Your task to perform on an android device: Empty the shopping cart on amazon. Add jbl flip 4 to the cart on amazon Image 0: 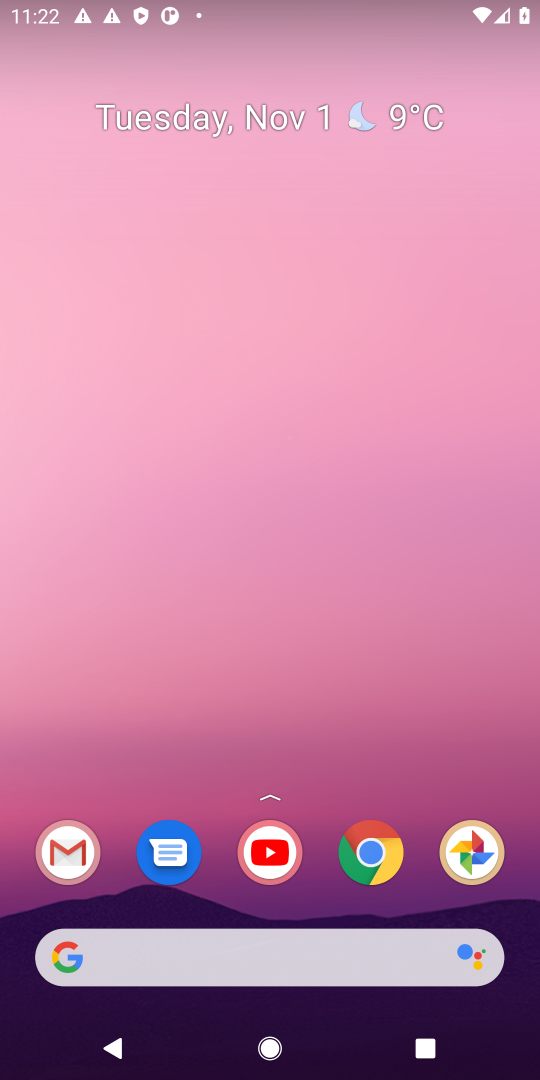
Step 0: drag from (229, 913) to (384, 309)
Your task to perform on an android device: Empty the shopping cart on amazon. Add jbl flip 4 to the cart on amazon Image 1: 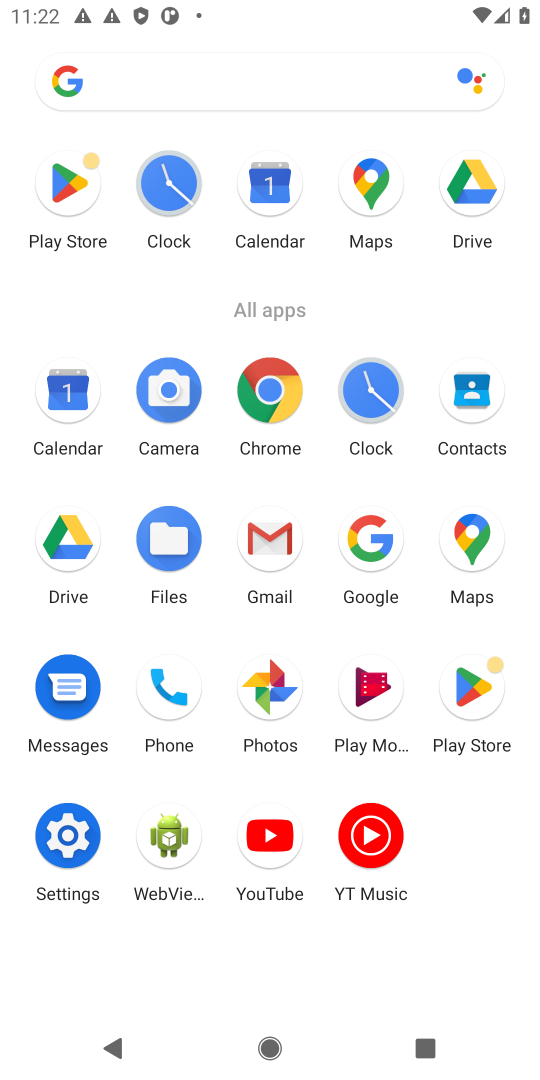
Step 1: click (369, 560)
Your task to perform on an android device: Empty the shopping cart on amazon. Add jbl flip 4 to the cart on amazon Image 2: 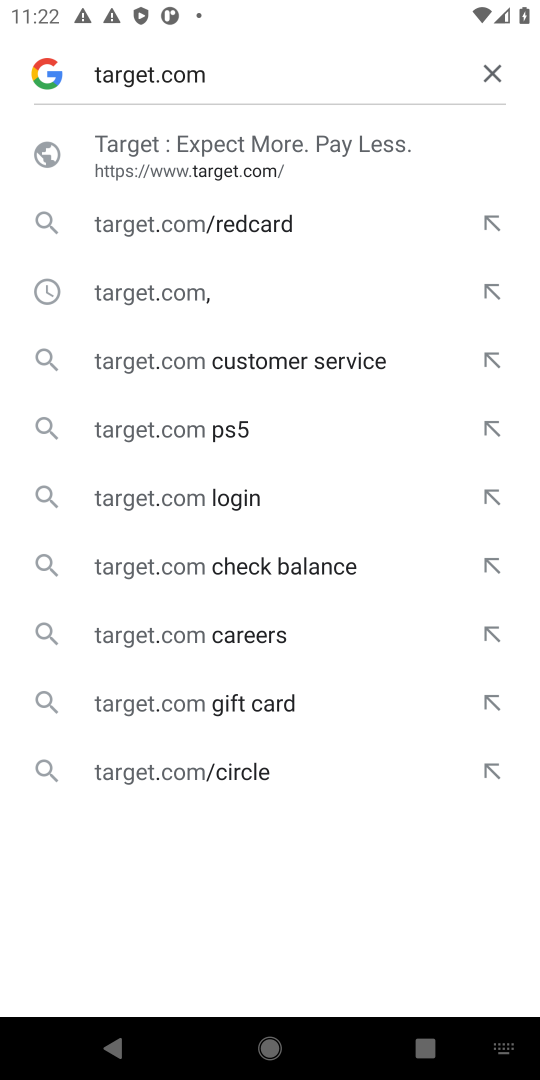
Step 2: click (501, 79)
Your task to perform on an android device: Empty the shopping cart on amazon. Add jbl flip 4 to the cart on amazon Image 3: 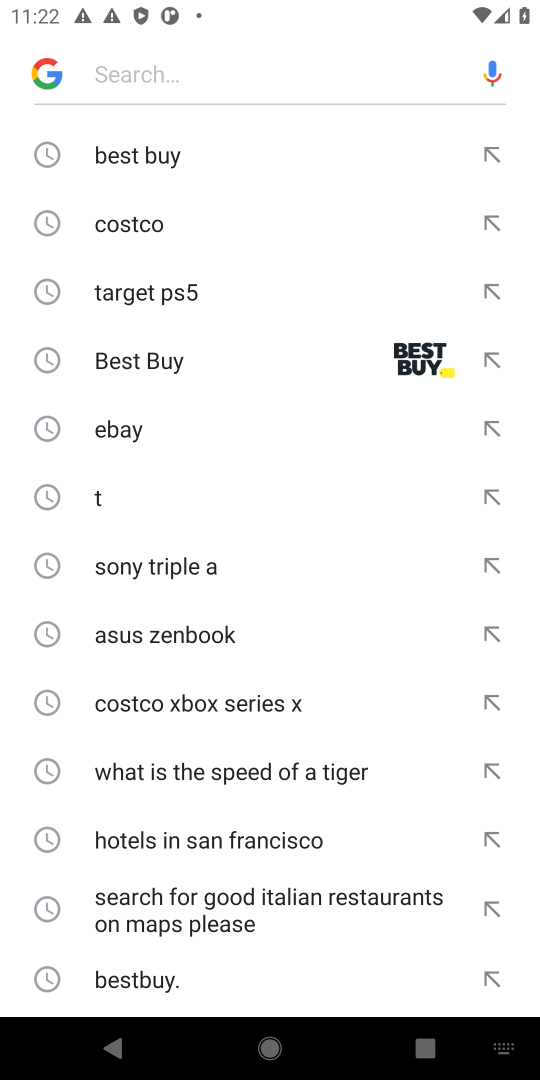
Step 3: type "amazon"
Your task to perform on an android device: Empty the shopping cart on amazon. Add jbl flip 4 to the cart on amazon Image 4: 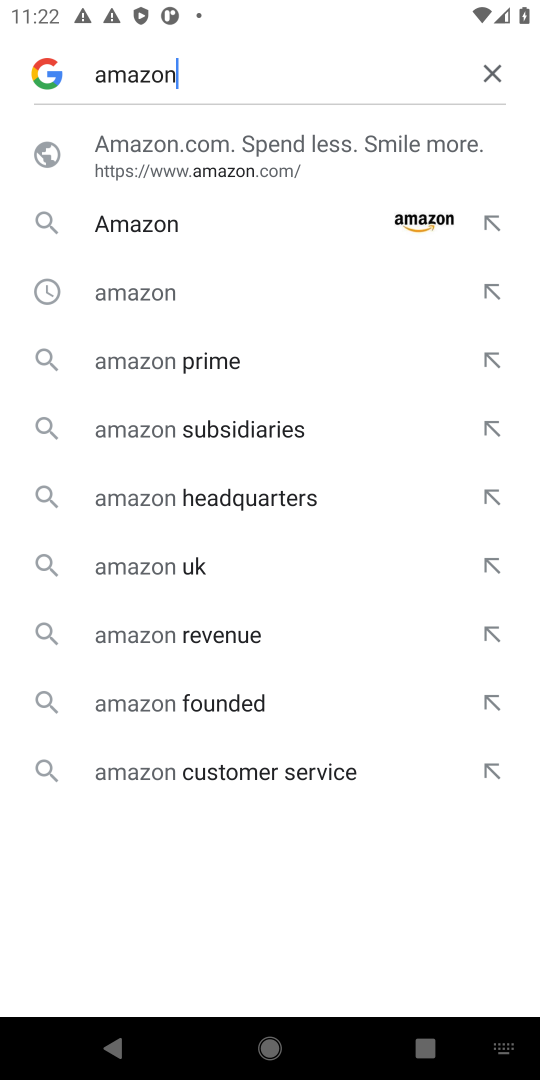
Step 4: click (325, 213)
Your task to perform on an android device: Empty the shopping cart on amazon. Add jbl flip 4 to the cart on amazon Image 5: 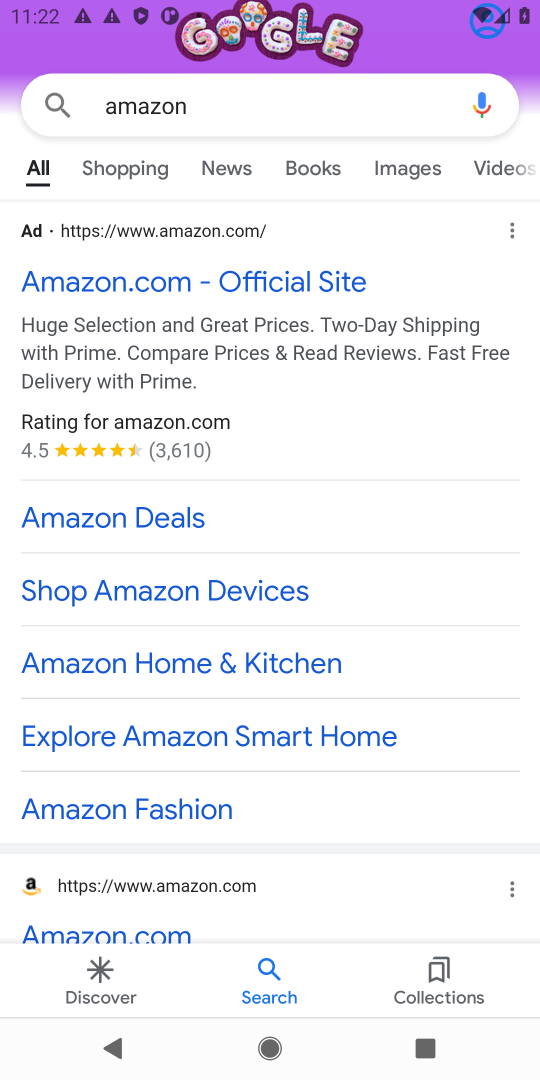
Step 5: click (216, 291)
Your task to perform on an android device: Empty the shopping cart on amazon. Add jbl flip 4 to the cart on amazon Image 6: 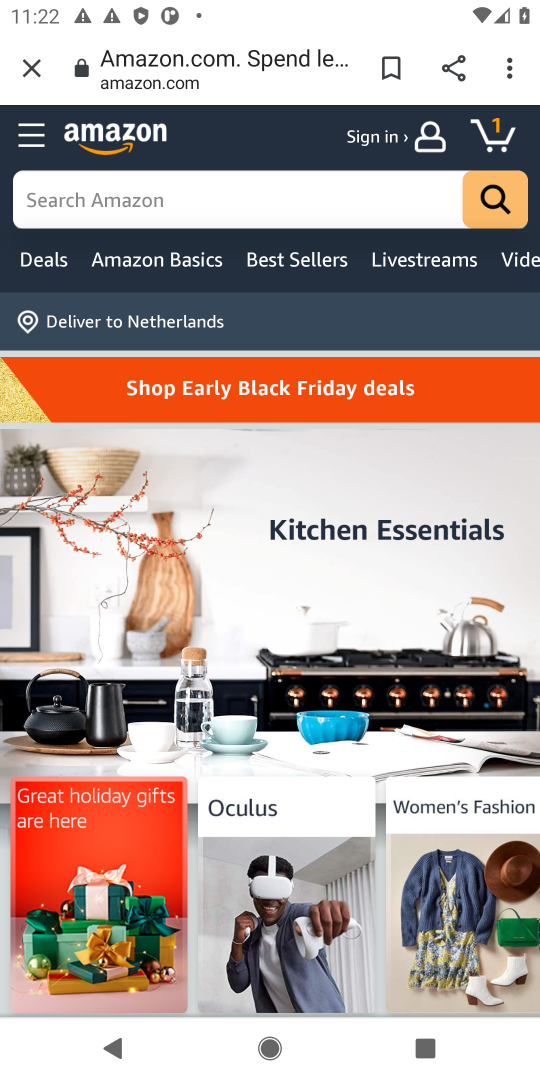
Step 6: click (191, 141)
Your task to perform on an android device: Empty the shopping cart on amazon. Add jbl flip 4 to the cart on amazon Image 7: 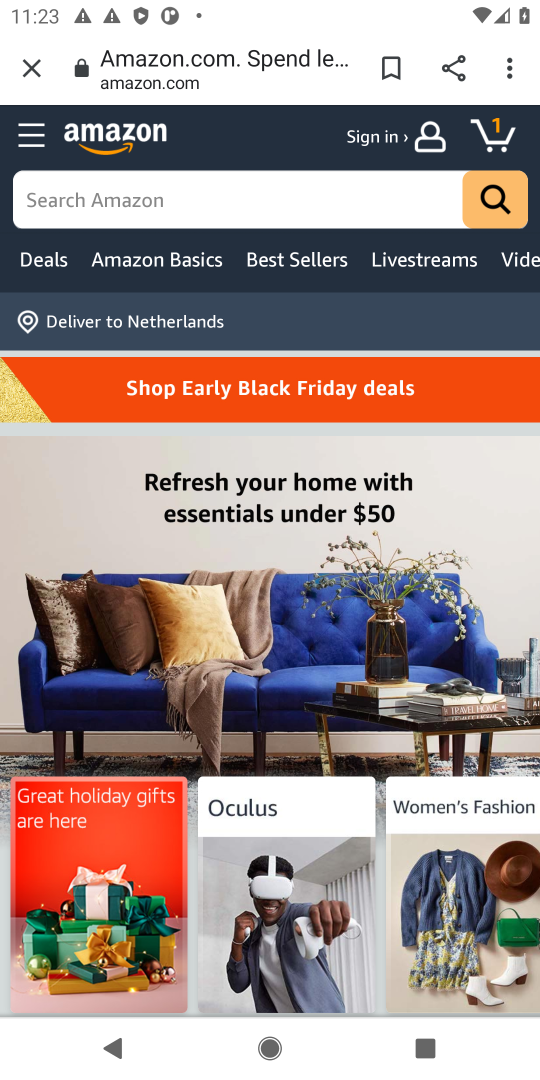
Step 7: type "jbl flip 4"
Your task to perform on an android device: Empty the shopping cart on amazon. Add jbl flip 4 to the cart on amazon Image 8: 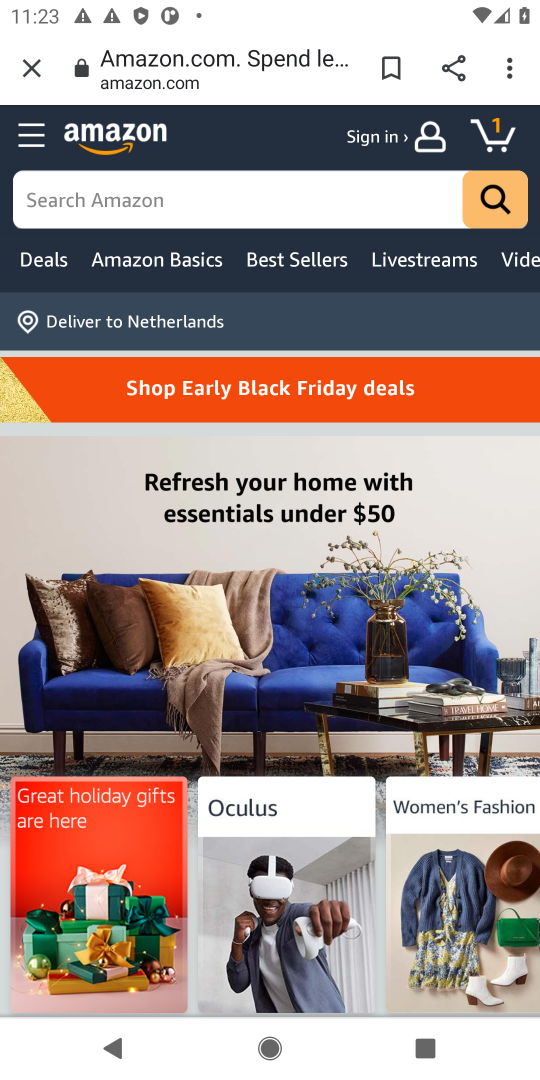
Step 8: click (165, 213)
Your task to perform on an android device: Empty the shopping cart on amazon. Add jbl flip 4 to the cart on amazon Image 9: 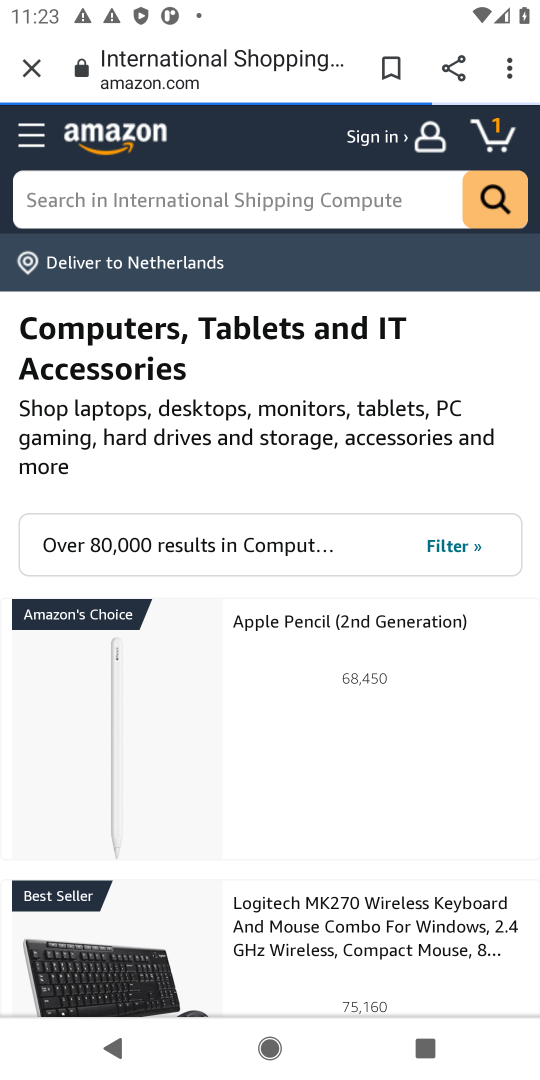
Step 9: click (165, 213)
Your task to perform on an android device: Empty the shopping cart on amazon. Add jbl flip 4 to the cart on amazon Image 10: 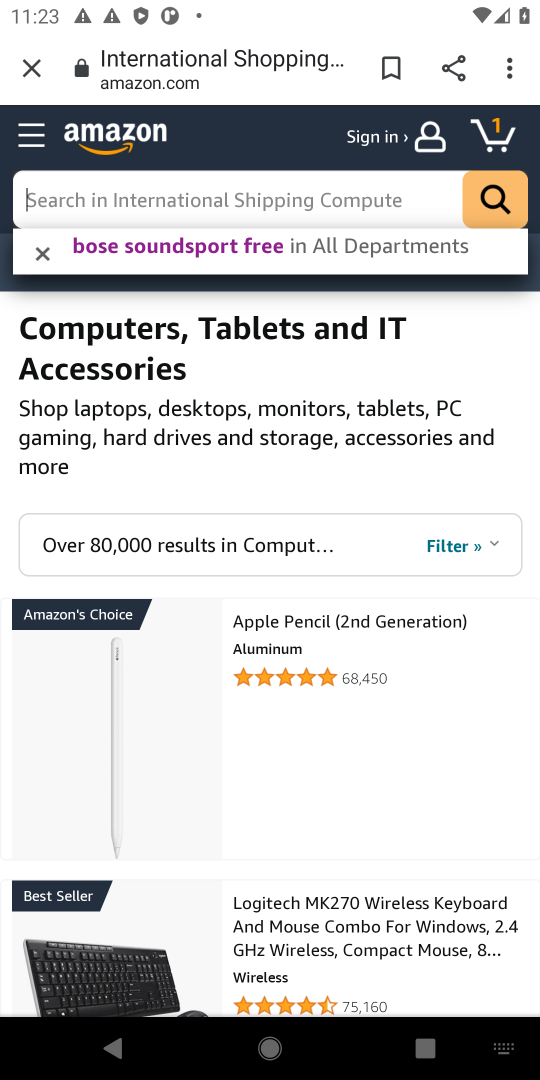
Step 10: type "jbl flip 4"
Your task to perform on an android device: Empty the shopping cart on amazon. Add jbl flip 4 to the cart on amazon Image 11: 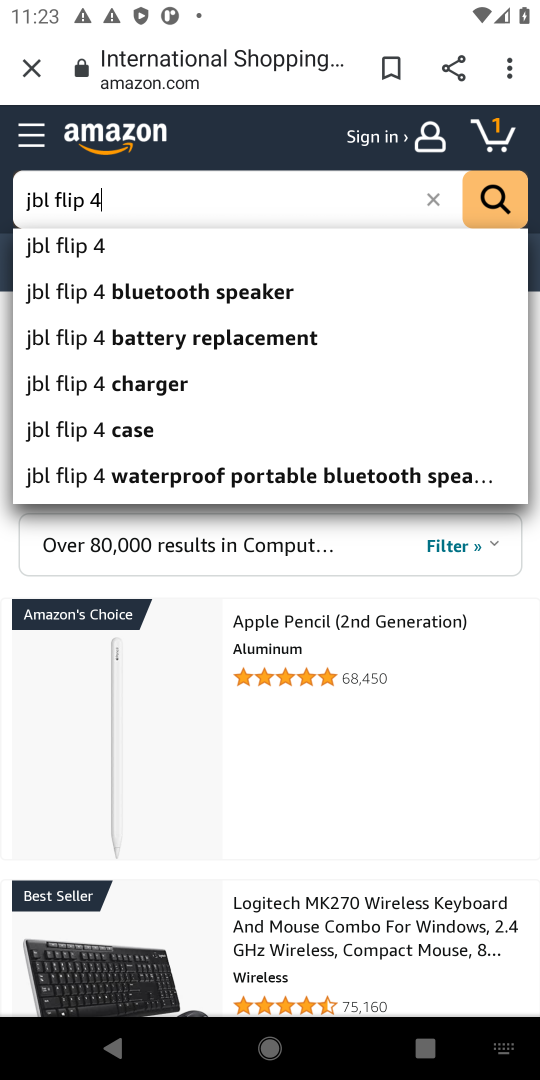
Step 11: click (288, 255)
Your task to perform on an android device: Empty the shopping cart on amazon. Add jbl flip 4 to the cart on amazon Image 12: 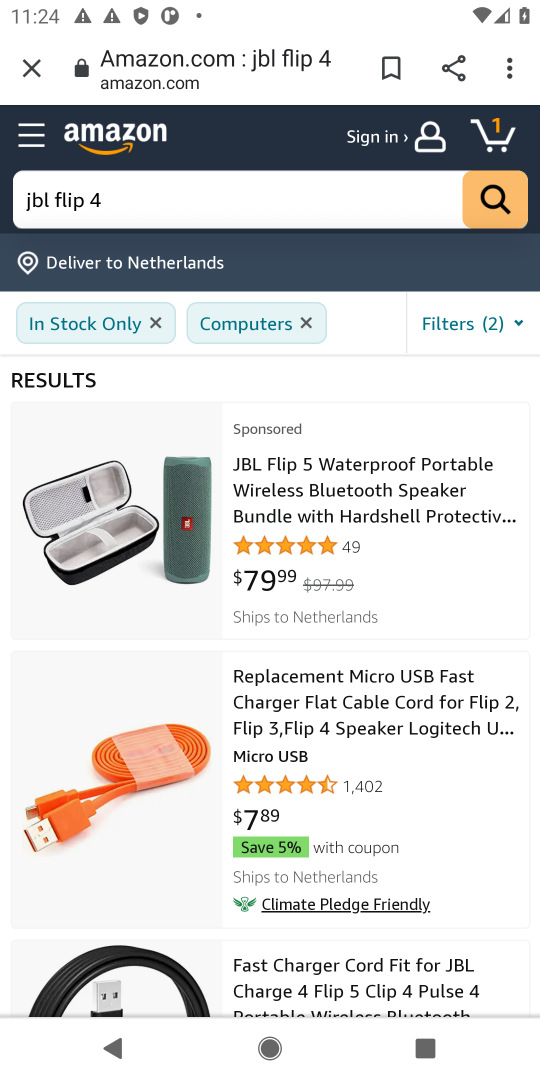
Step 12: click (505, 135)
Your task to perform on an android device: Empty the shopping cart on amazon. Add jbl flip 4 to the cart on amazon Image 13: 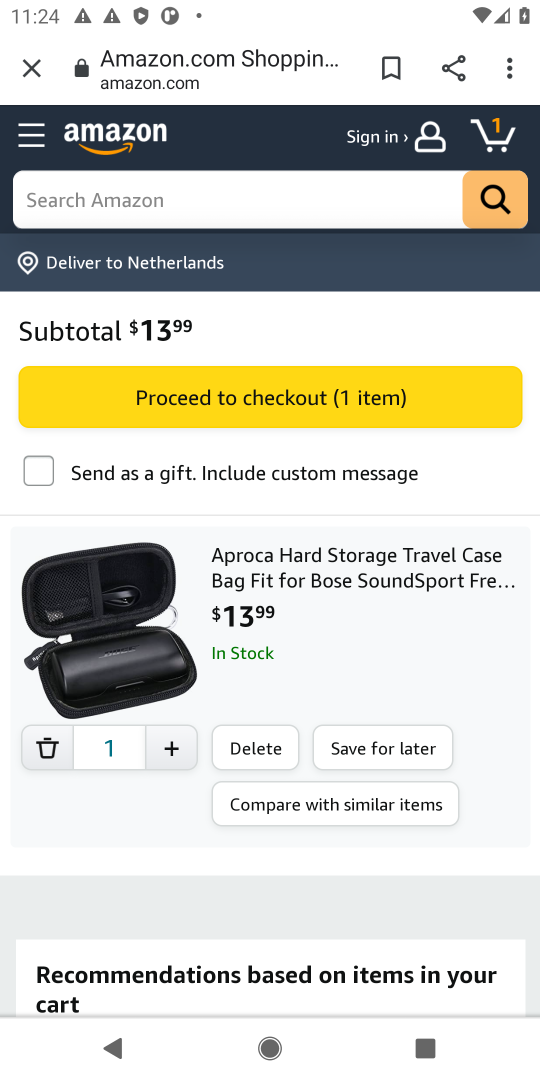
Step 13: click (254, 748)
Your task to perform on an android device: Empty the shopping cart on amazon. Add jbl flip 4 to the cart on amazon Image 14: 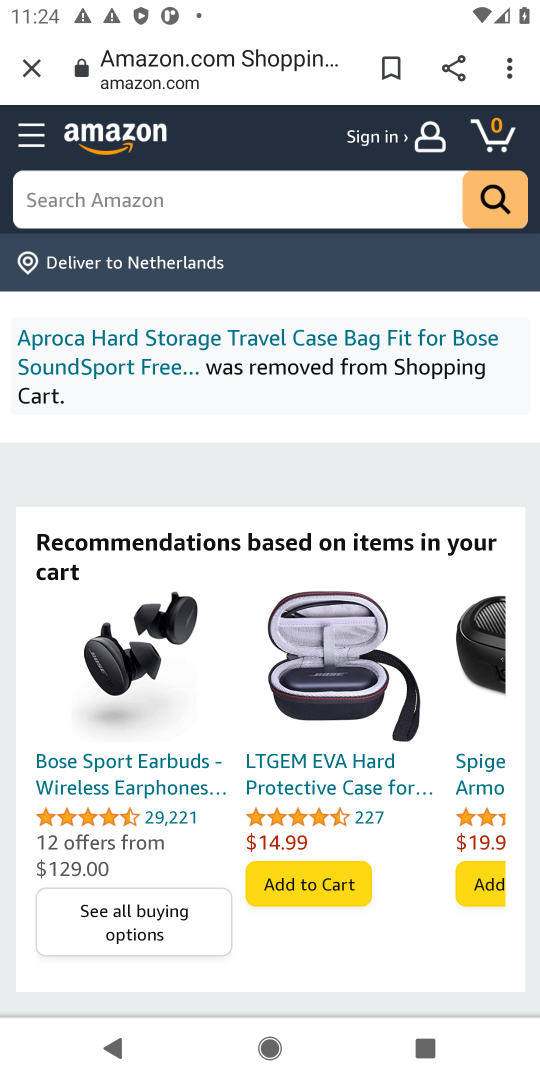
Step 14: click (273, 187)
Your task to perform on an android device: Empty the shopping cart on amazon. Add jbl flip 4 to the cart on amazon Image 15: 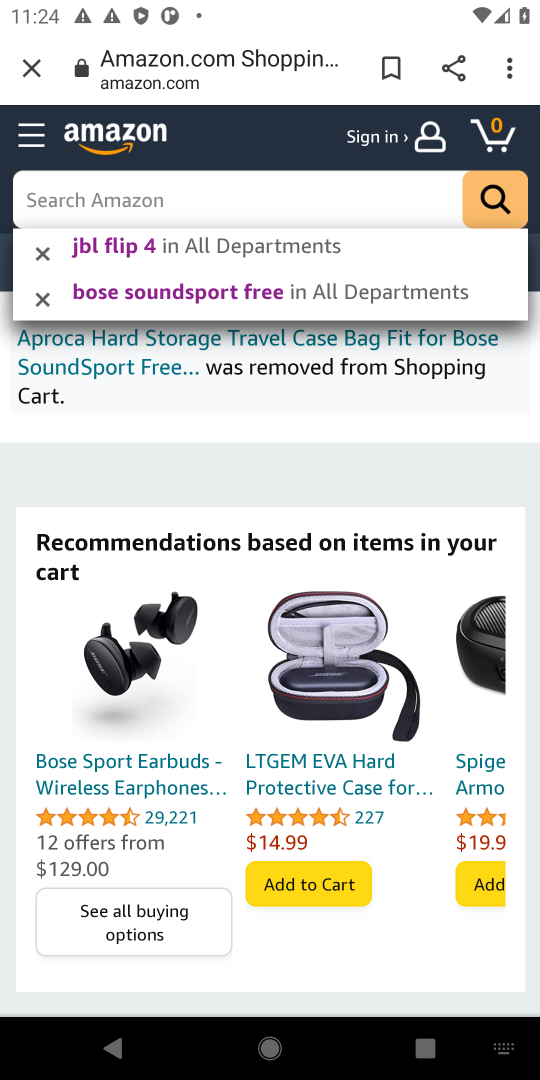
Step 15: click (277, 248)
Your task to perform on an android device: Empty the shopping cart on amazon. Add jbl flip 4 to the cart on amazon Image 16: 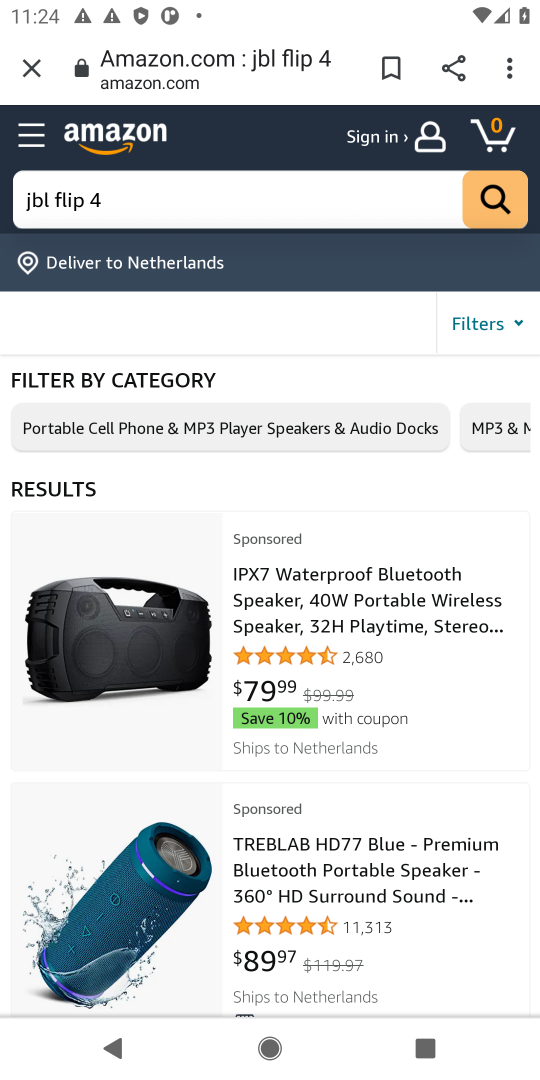
Step 16: click (503, 210)
Your task to perform on an android device: Empty the shopping cart on amazon. Add jbl flip 4 to the cart on amazon Image 17: 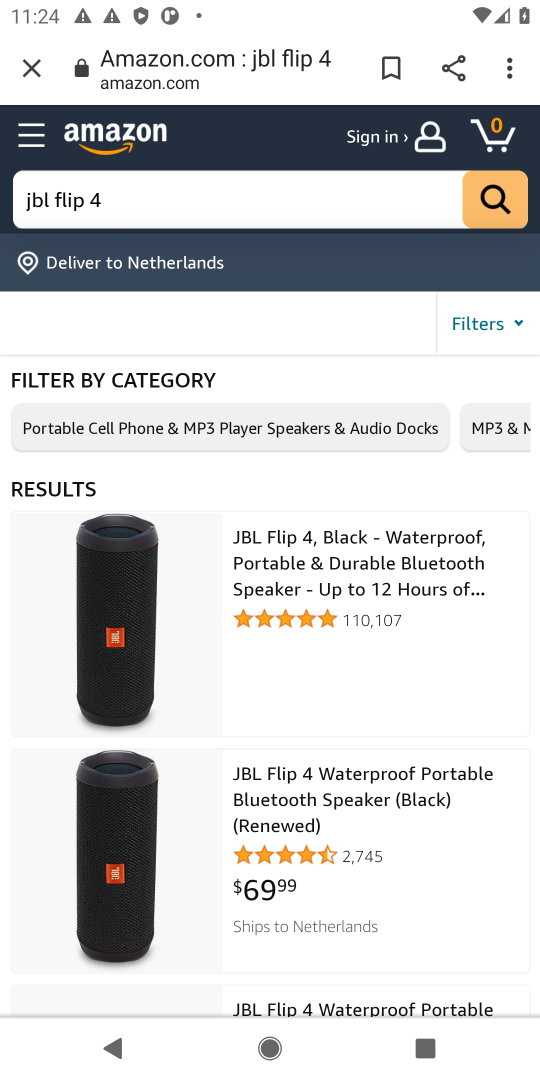
Step 17: click (368, 530)
Your task to perform on an android device: Empty the shopping cart on amazon. Add jbl flip 4 to the cart on amazon Image 18: 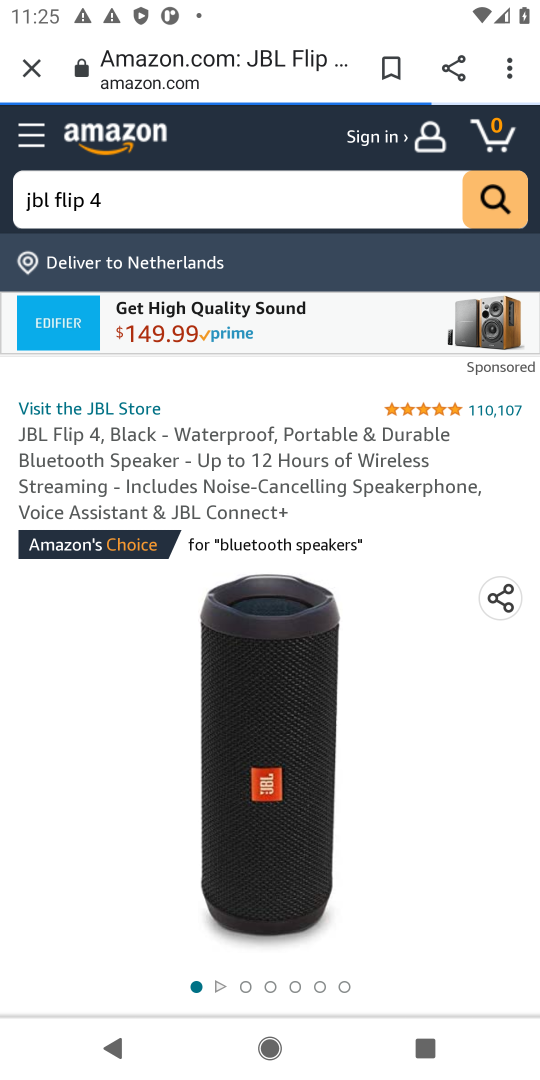
Step 18: drag from (384, 532) to (378, 431)
Your task to perform on an android device: Empty the shopping cart on amazon. Add jbl flip 4 to the cart on amazon Image 19: 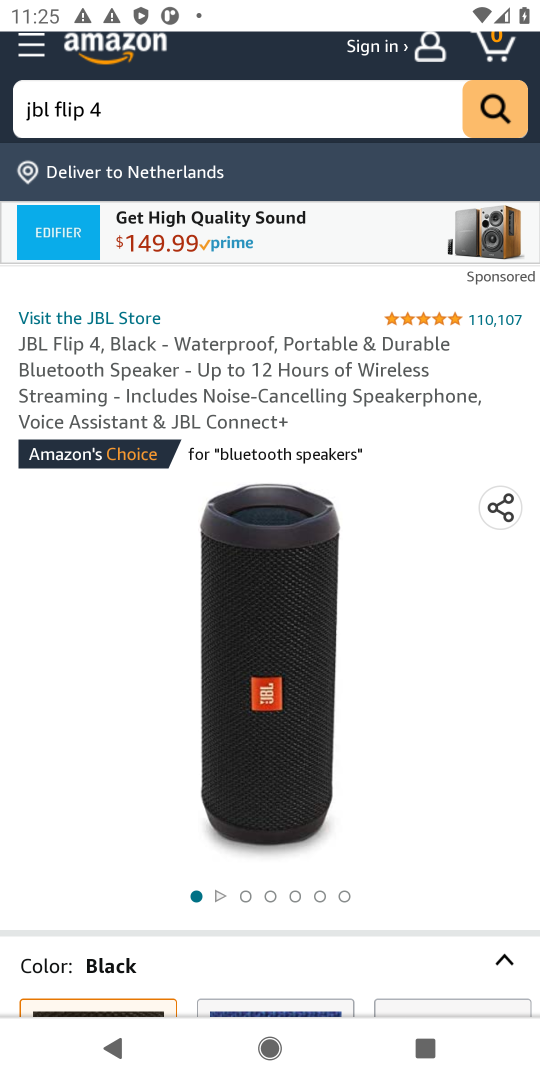
Step 19: drag from (371, 705) to (342, 385)
Your task to perform on an android device: Empty the shopping cart on amazon. Add jbl flip 4 to the cart on amazon Image 20: 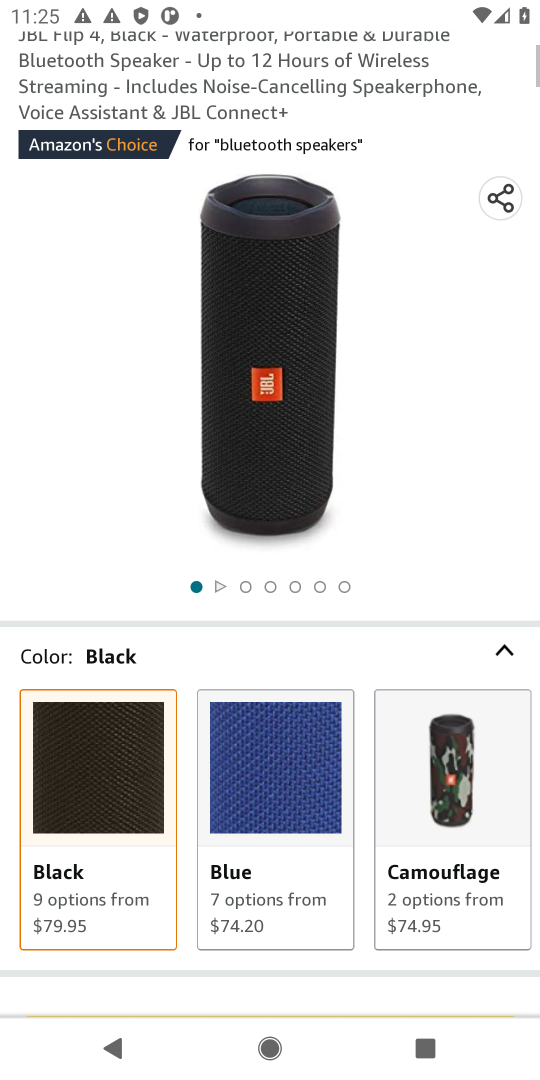
Step 20: click (318, 117)
Your task to perform on an android device: Empty the shopping cart on amazon. Add jbl flip 4 to the cart on amazon Image 21: 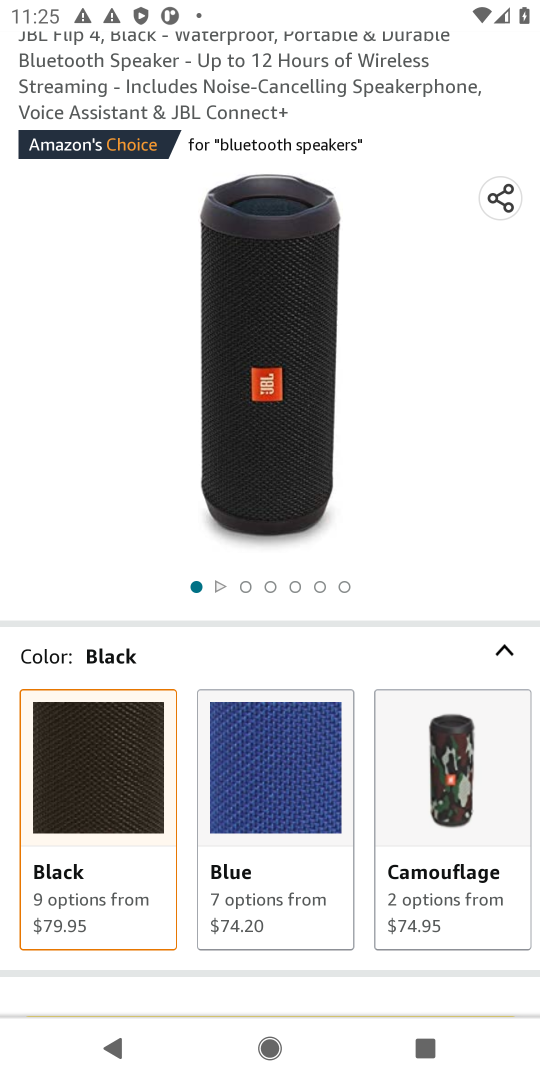
Step 21: task complete